Your task to perform on an android device: Add jbl flip 4 to the cart on walmart.com, then select checkout. Image 0: 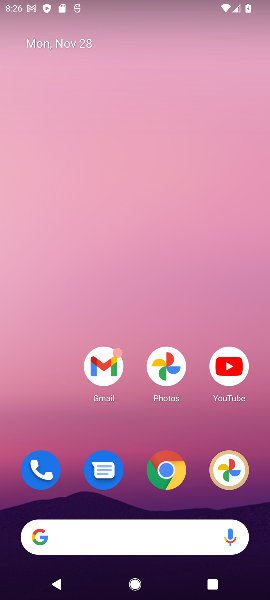
Step 0: click (120, 533)
Your task to perform on an android device: Add jbl flip 4 to the cart on walmart.com, then select checkout. Image 1: 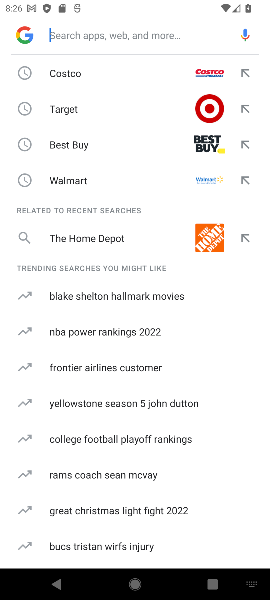
Step 1: click (76, 184)
Your task to perform on an android device: Add jbl flip 4 to the cart on walmart.com, then select checkout. Image 2: 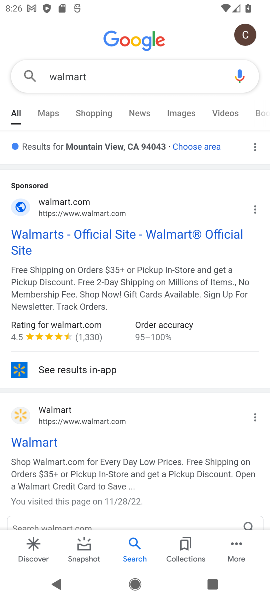
Step 2: click (44, 434)
Your task to perform on an android device: Add jbl flip 4 to the cart on walmart.com, then select checkout. Image 3: 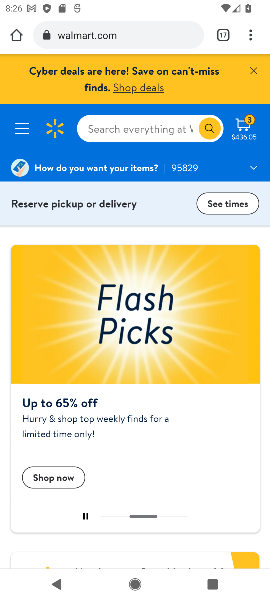
Step 3: click (126, 131)
Your task to perform on an android device: Add jbl flip 4 to the cart on walmart.com, then select checkout. Image 4: 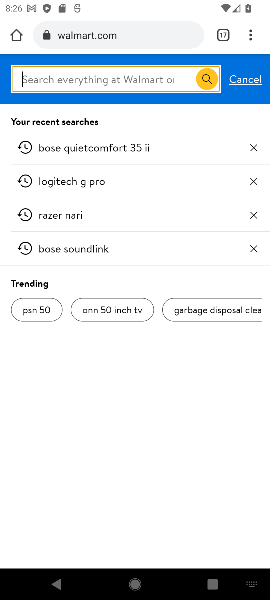
Step 4: type " jbl flip 4 "
Your task to perform on an android device: Add jbl flip 4 to the cart on walmart.com, then select checkout. Image 5: 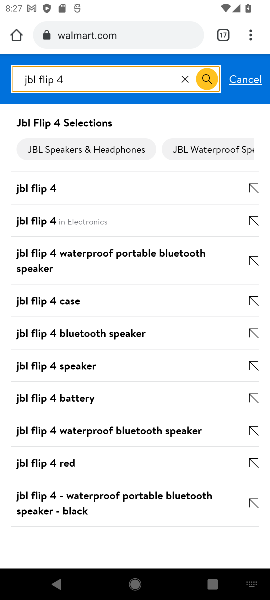
Step 5: click (52, 195)
Your task to perform on an android device: Add jbl flip 4 to the cart on walmart.com, then select checkout. Image 6: 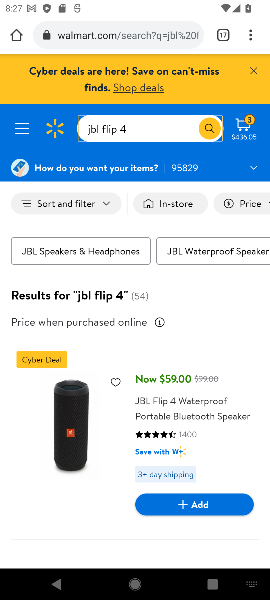
Step 6: click (196, 510)
Your task to perform on an android device: Add jbl flip 4 to the cart on walmart.com, then select checkout. Image 7: 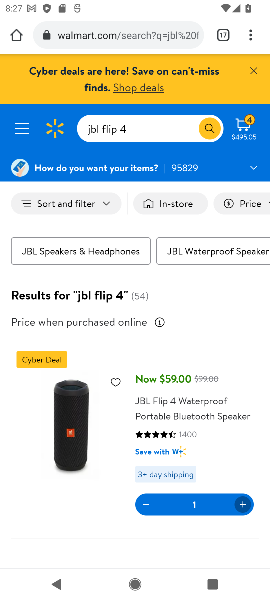
Step 7: click (244, 130)
Your task to perform on an android device: Add jbl flip 4 to the cart on walmart.com, then select checkout. Image 8: 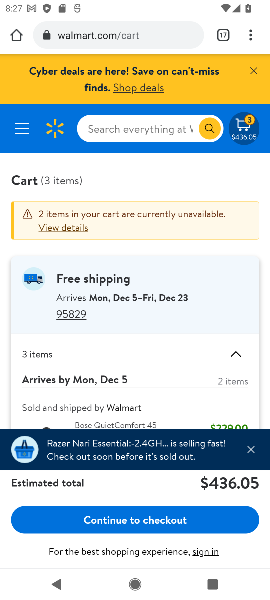
Step 8: click (118, 519)
Your task to perform on an android device: Add jbl flip 4 to the cart on walmart.com, then select checkout. Image 9: 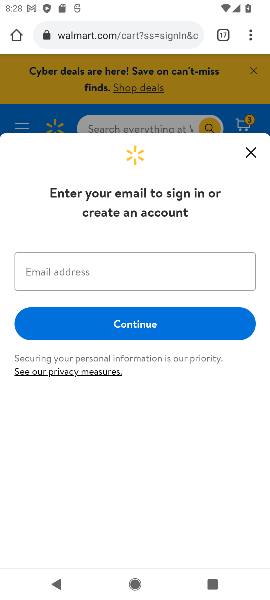
Step 9: task complete